Your task to perform on an android device: Check the news Image 0: 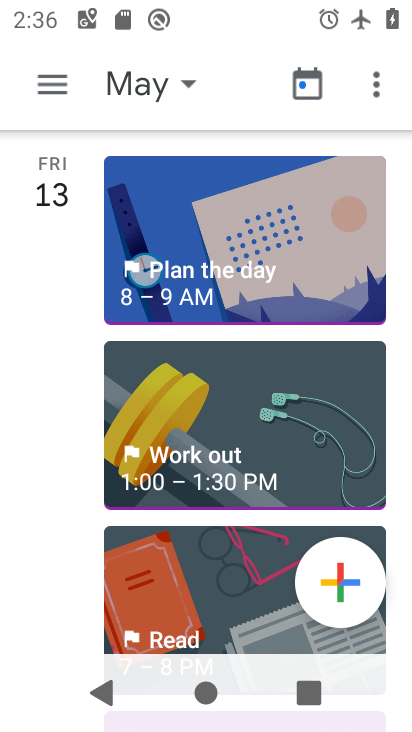
Step 0: press home button
Your task to perform on an android device: Check the news Image 1: 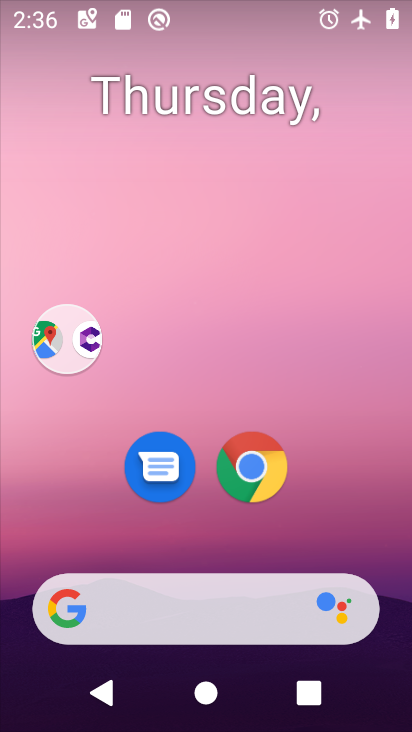
Step 1: drag from (200, 553) to (177, 46)
Your task to perform on an android device: Check the news Image 2: 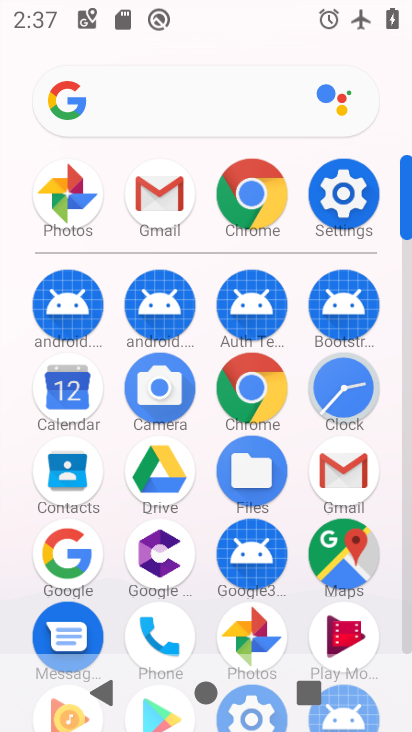
Step 2: drag from (209, 525) to (183, 138)
Your task to perform on an android device: Check the news Image 3: 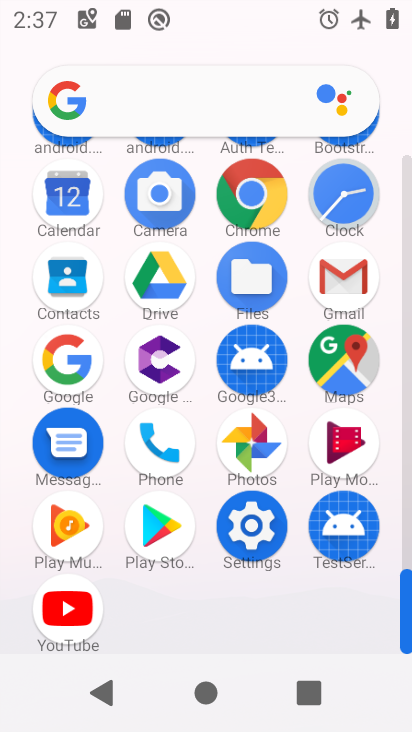
Step 3: click (62, 371)
Your task to perform on an android device: Check the news Image 4: 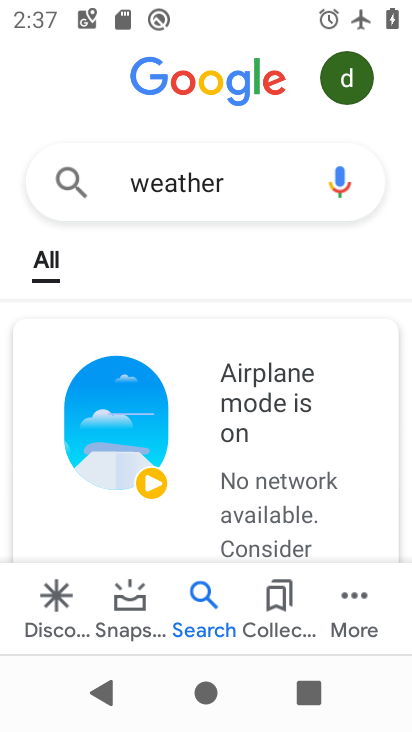
Step 4: click (208, 196)
Your task to perform on an android device: Check the news Image 5: 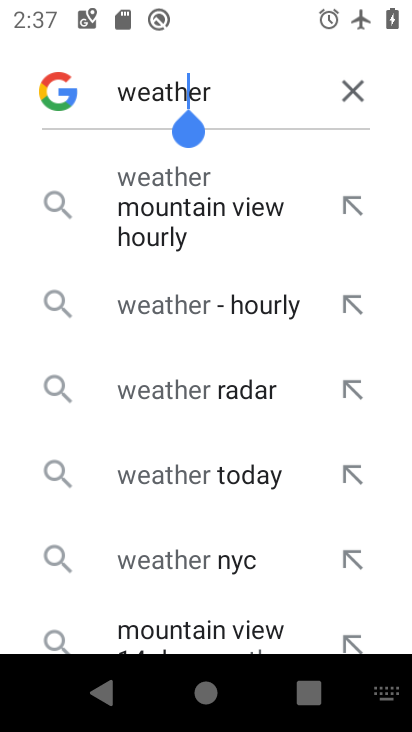
Step 5: click (350, 85)
Your task to perform on an android device: Check the news Image 6: 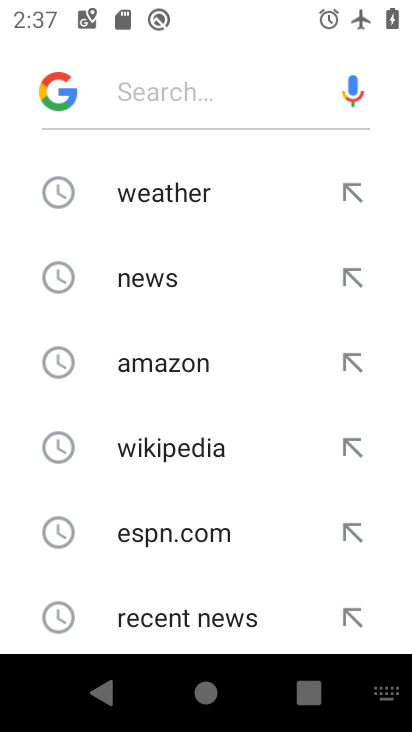
Step 6: click (153, 291)
Your task to perform on an android device: Check the news Image 7: 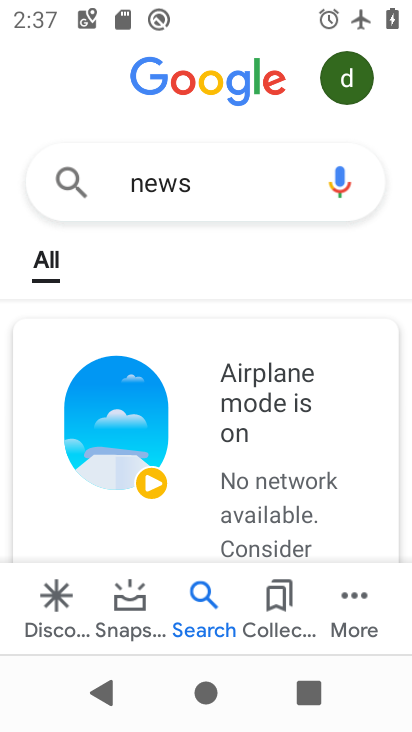
Step 7: task complete